Your task to perform on an android device: toggle notification dots Image 0: 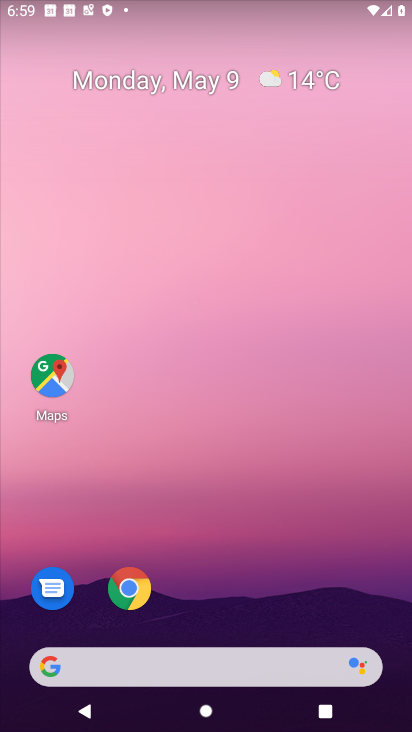
Step 0: drag from (328, 582) to (224, 77)
Your task to perform on an android device: toggle notification dots Image 1: 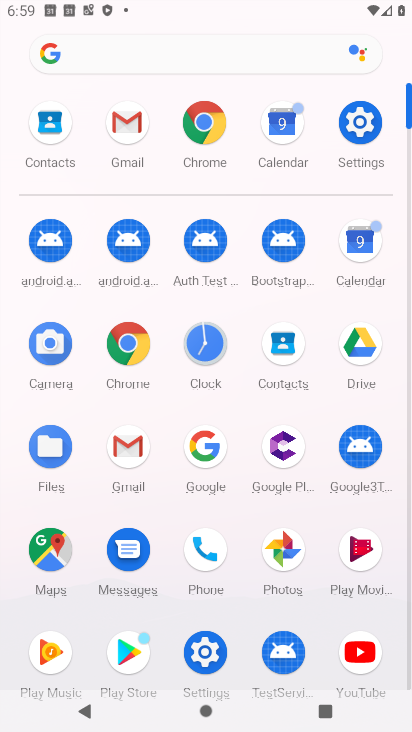
Step 1: click (365, 129)
Your task to perform on an android device: toggle notification dots Image 2: 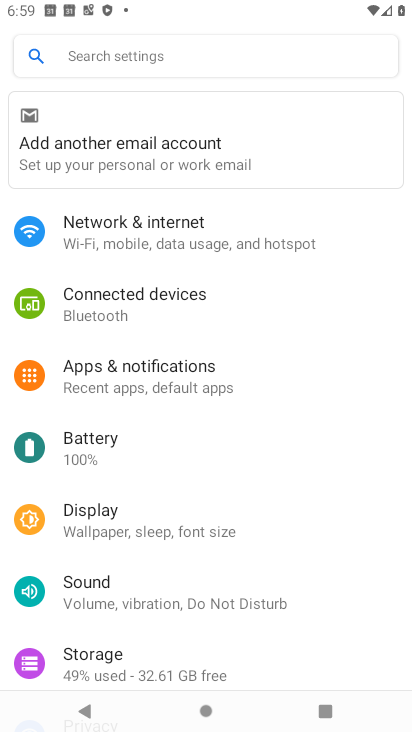
Step 2: click (235, 368)
Your task to perform on an android device: toggle notification dots Image 3: 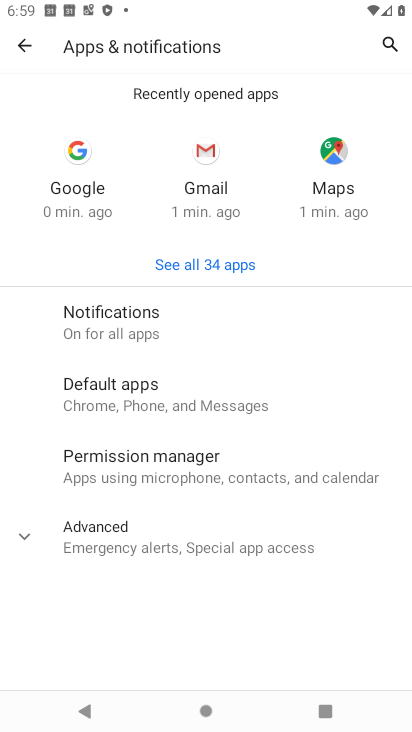
Step 3: click (205, 331)
Your task to perform on an android device: toggle notification dots Image 4: 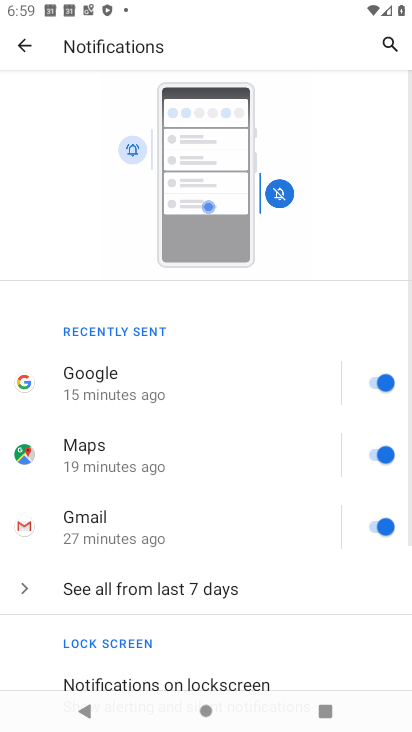
Step 4: drag from (159, 650) to (197, 165)
Your task to perform on an android device: toggle notification dots Image 5: 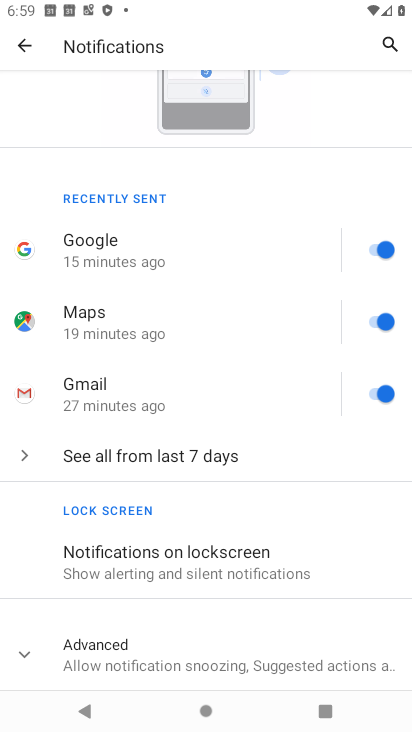
Step 5: click (21, 659)
Your task to perform on an android device: toggle notification dots Image 6: 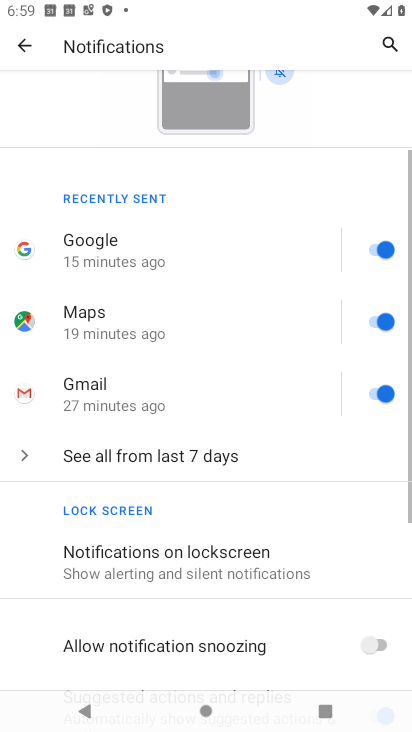
Step 6: drag from (158, 639) to (191, 193)
Your task to perform on an android device: toggle notification dots Image 7: 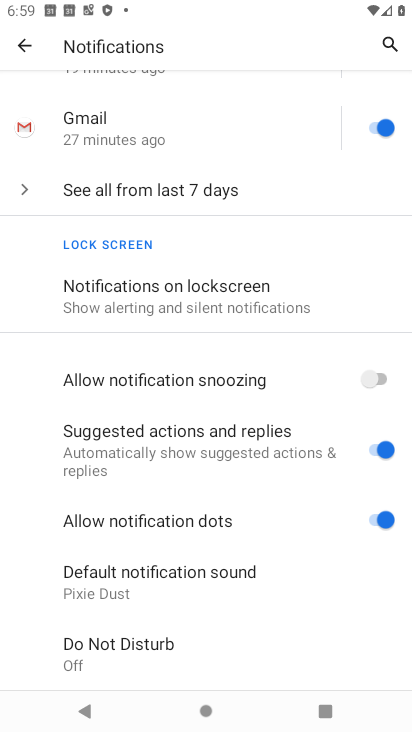
Step 7: click (308, 529)
Your task to perform on an android device: toggle notification dots Image 8: 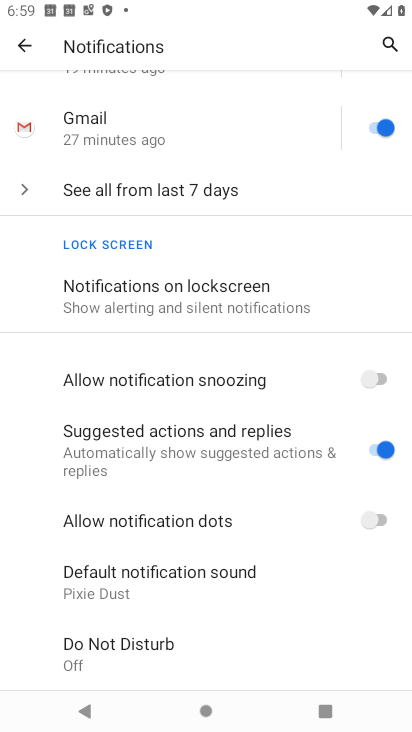
Step 8: task complete